Your task to perform on an android device: Add "bose soundsport free" to the cart on walmart.com, then select checkout. Image 0: 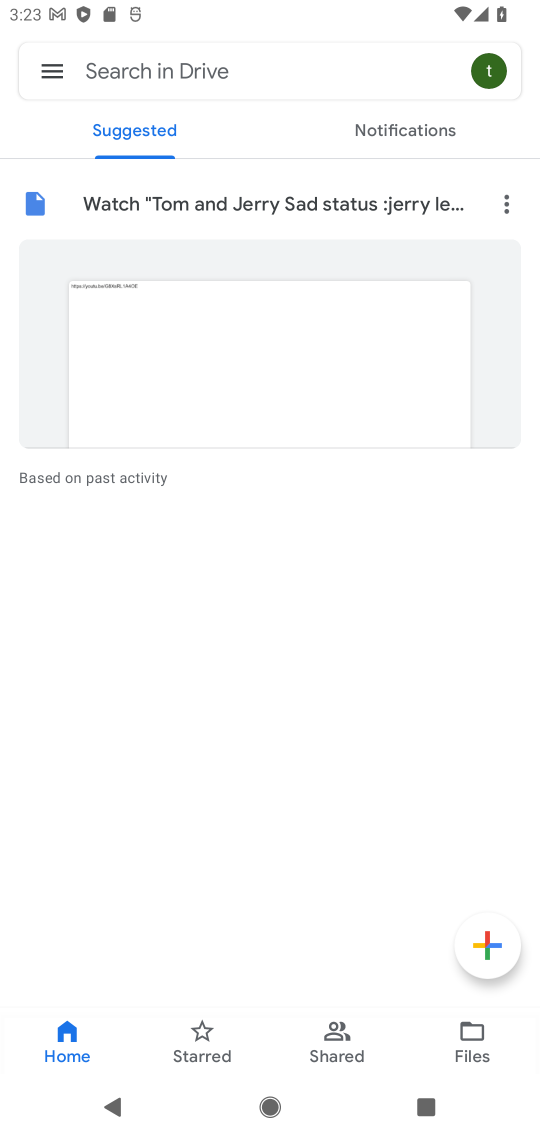
Step 0: press home button
Your task to perform on an android device: Add "bose soundsport free" to the cart on walmart.com, then select checkout. Image 1: 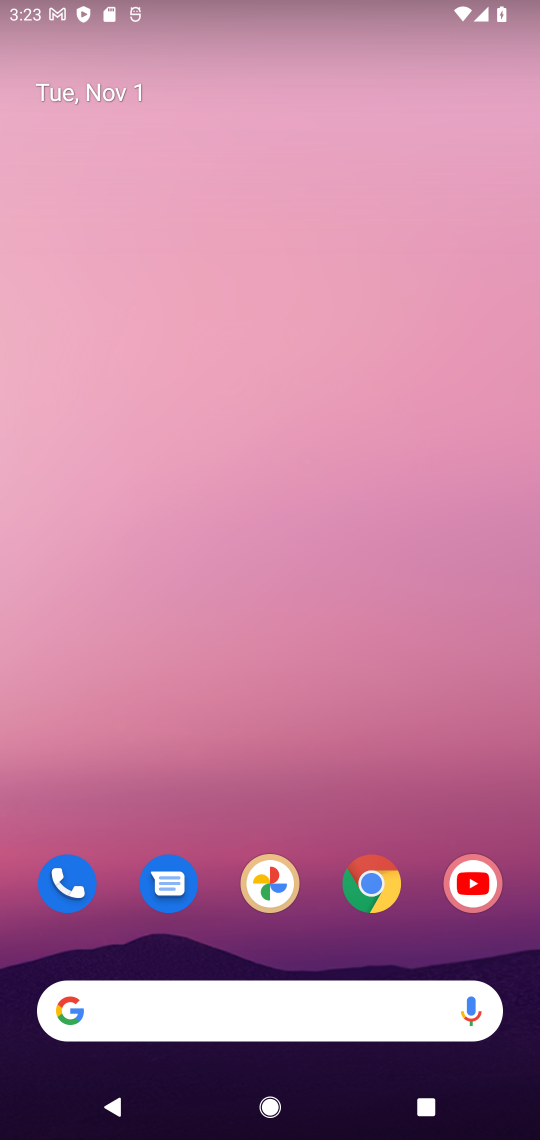
Step 1: click (359, 863)
Your task to perform on an android device: Add "bose soundsport free" to the cart on walmart.com, then select checkout. Image 2: 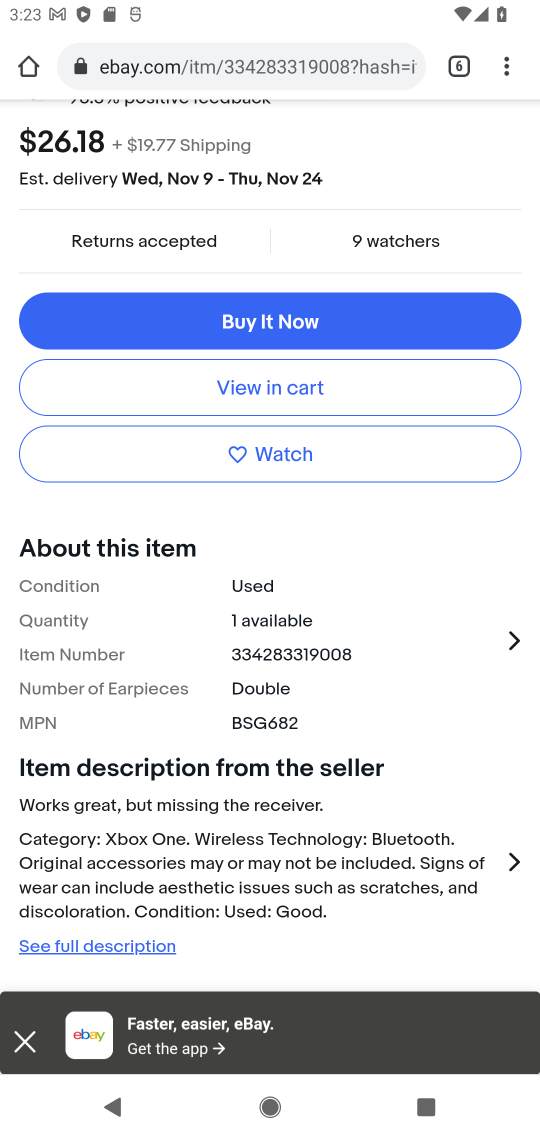
Step 2: click (458, 69)
Your task to perform on an android device: Add "bose soundsport free" to the cart on walmart.com, then select checkout. Image 3: 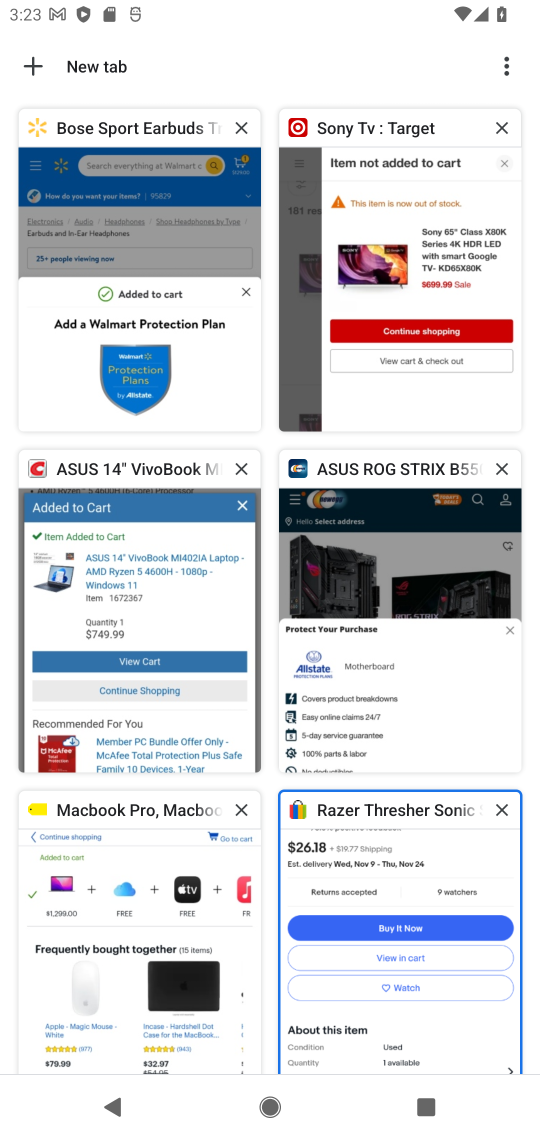
Step 3: click (137, 174)
Your task to perform on an android device: Add "bose soundsport free" to the cart on walmart.com, then select checkout. Image 4: 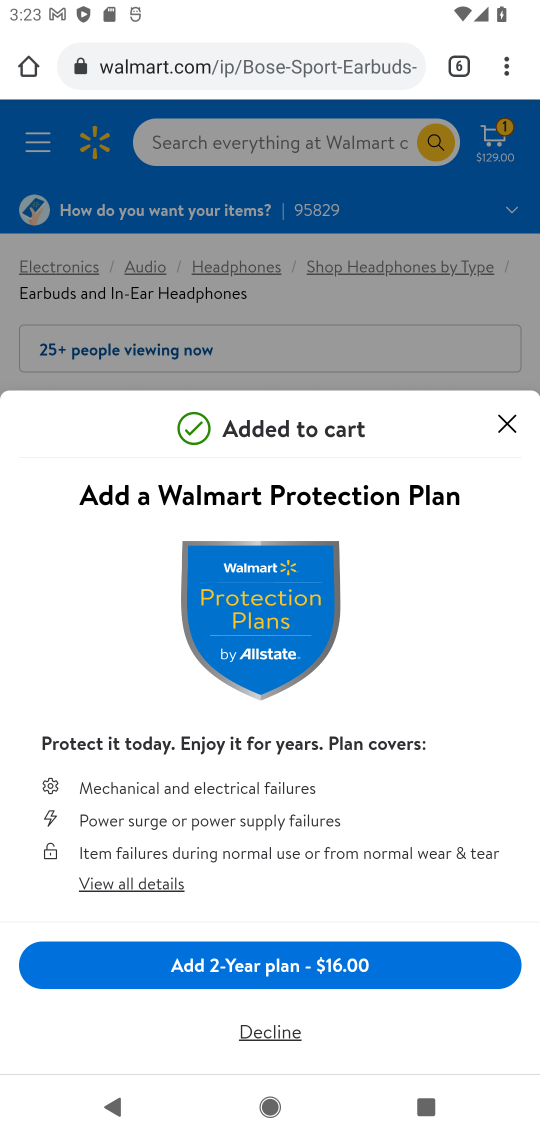
Step 4: click (506, 419)
Your task to perform on an android device: Add "bose soundsport free" to the cart on walmart.com, then select checkout. Image 5: 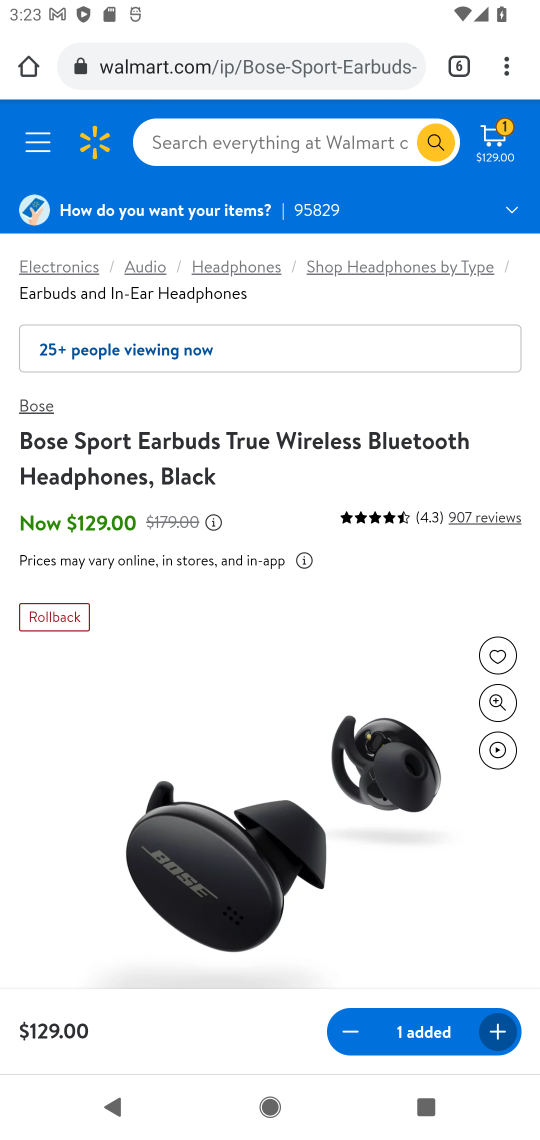
Step 5: click (321, 145)
Your task to perform on an android device: Add "bose soundsport free" to the cart on walmart.com, then select checkout. Image 6: 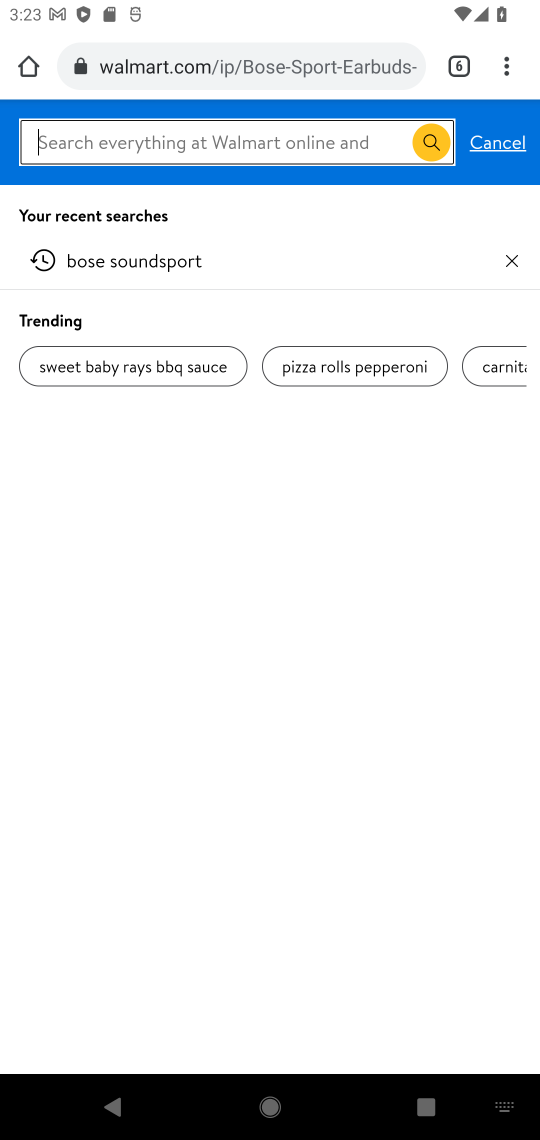
Step 6: type "bose soundsport free"
Your task to perform on an android device: Add "bose soundsport free" to the cart on walmart.com, then select checkout. Image 7: 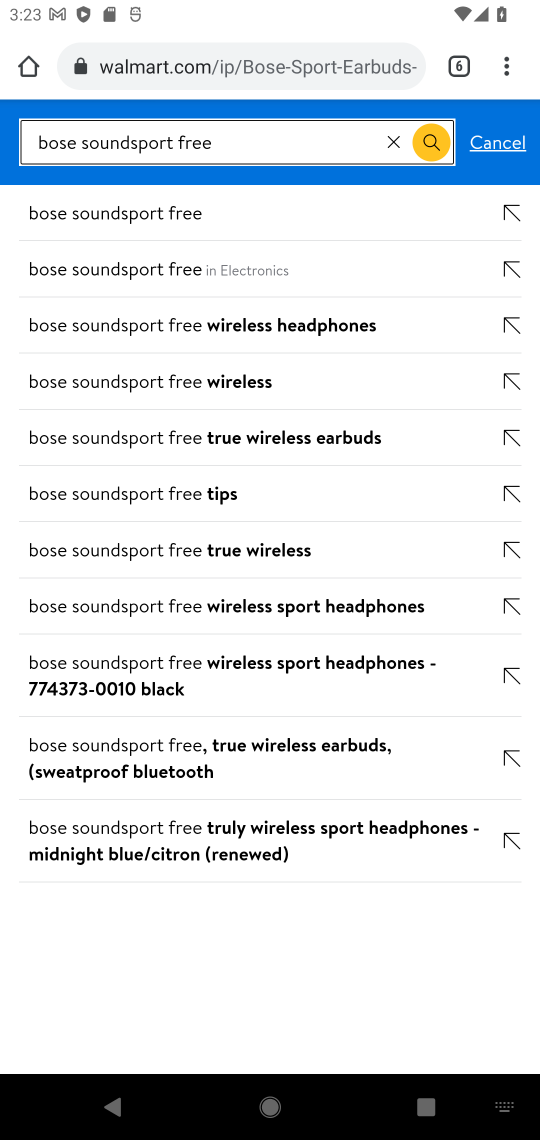
Step 7: click (273, 270)
Your task to perform on an android device: Add "bose soundsport free" to the cart on walmart.com, then select checkout. Image 8: 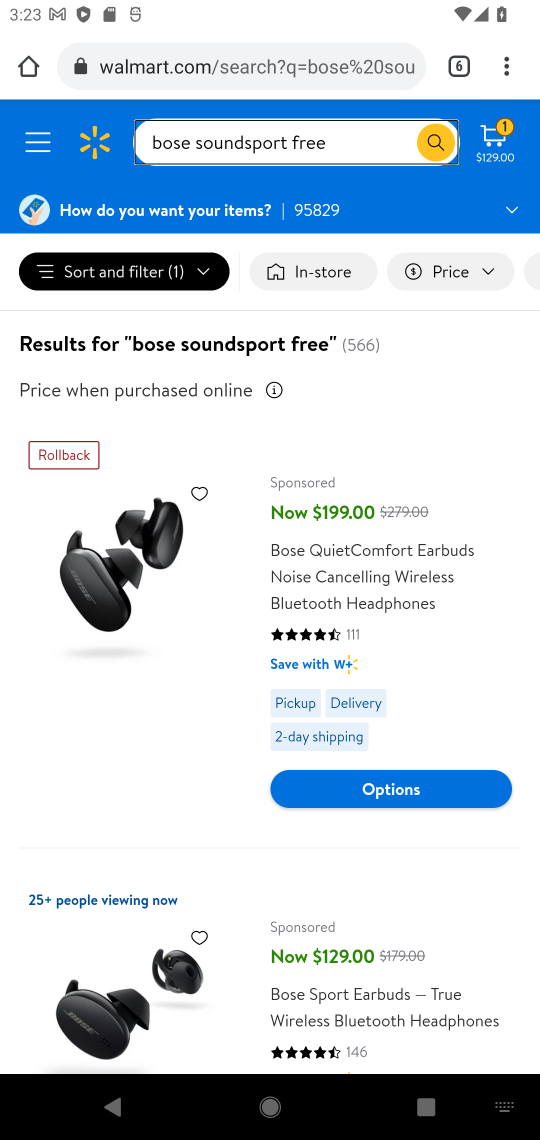
Step 8: drag from (396, 874) to (421, 335)
Your task to perform on an android device: Add "bose soundsport free" to the cart on walmart.com, then select checkout. Image 9: 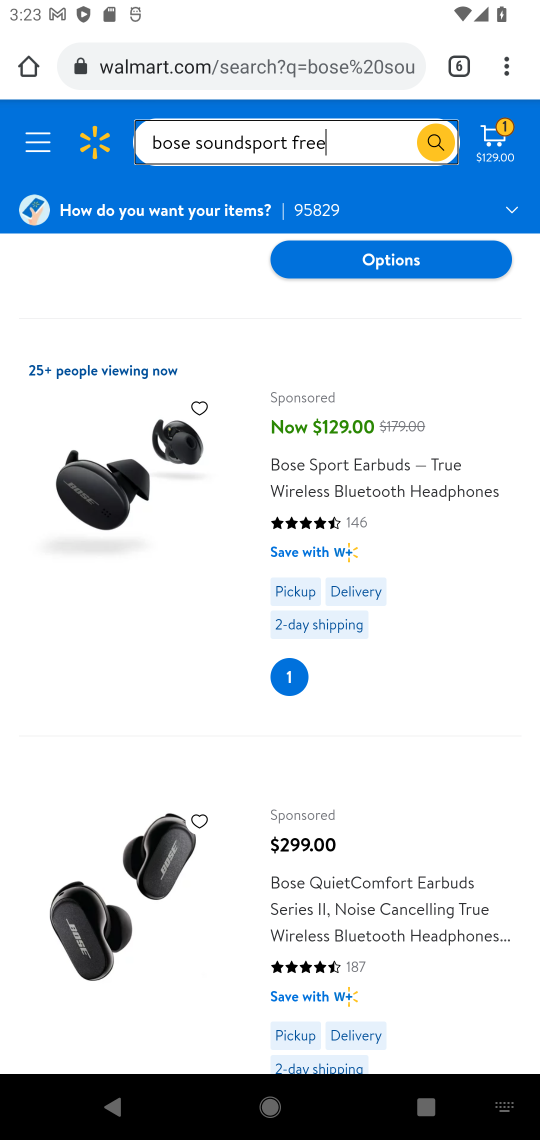
Step 9: click (343, 490)
Your task to perform on an android device: Add "bose soundsport free" to the cart on walmart.com, then select checkout. Image 10: 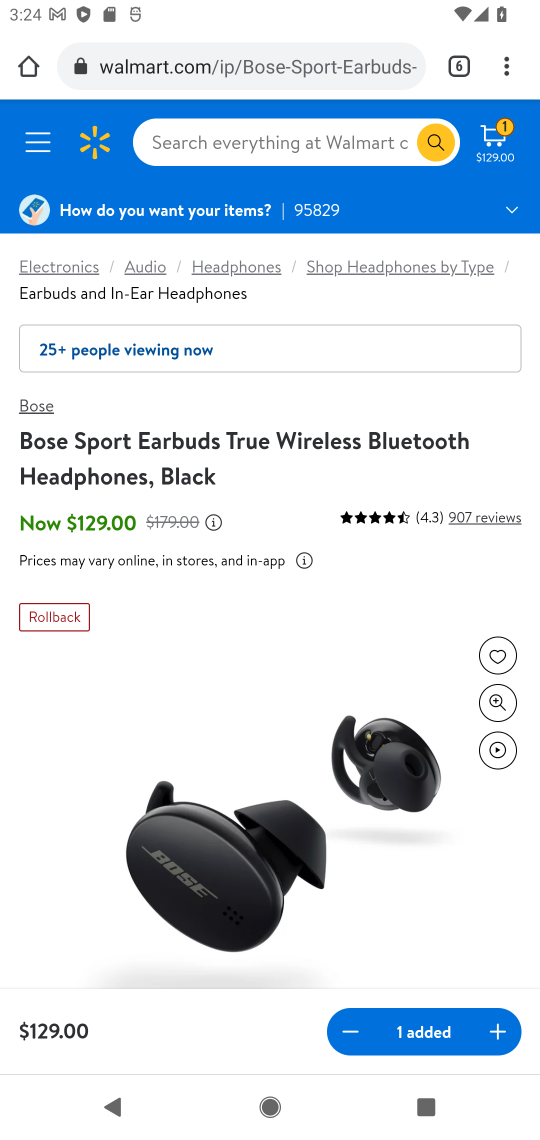
Step 10: click (504, 139)
Your task to perform on an android device: Add "bose soundsport free" to the cart on walmart.com, then select checkout. Image 11: 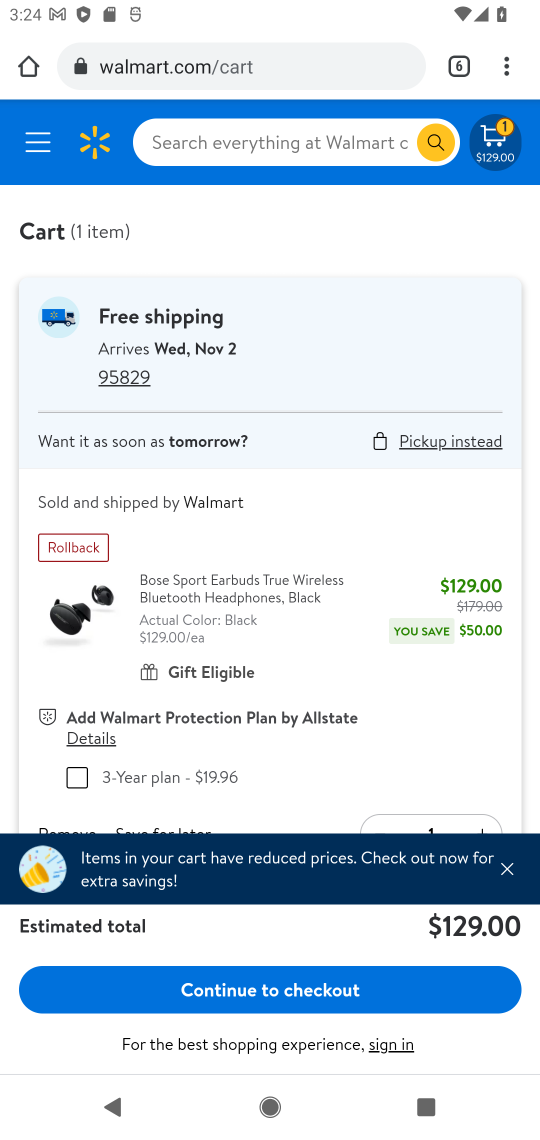
Step 11: click (244, 995)
Your task to perform on an android device: Add "bose soundsport free" to the cart on walmart.com, then select checkout. Image 12: 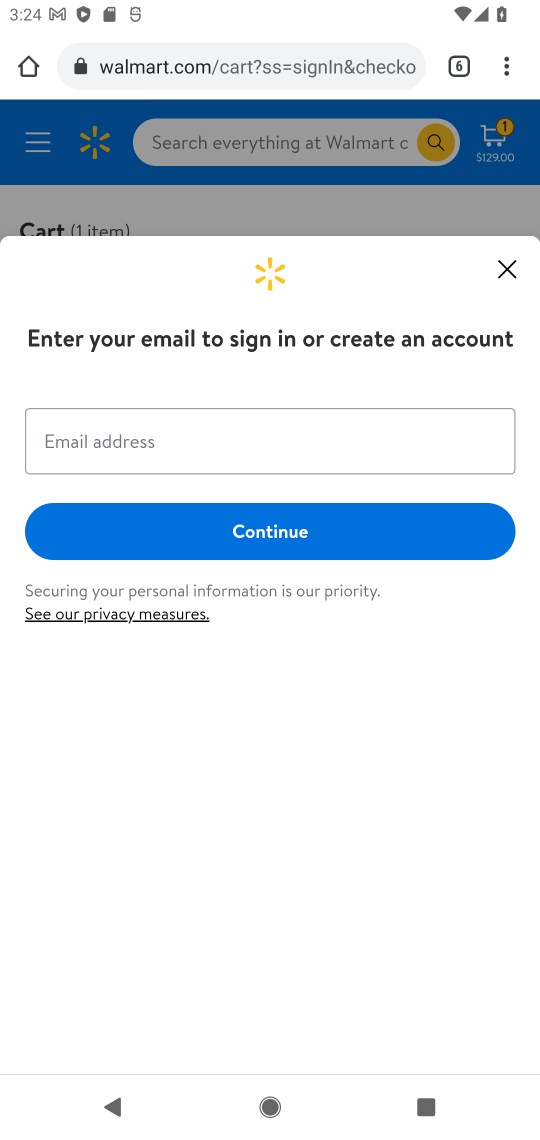
Step 12: task complete